Your task to perform on an android device: See recent photos Image 0: 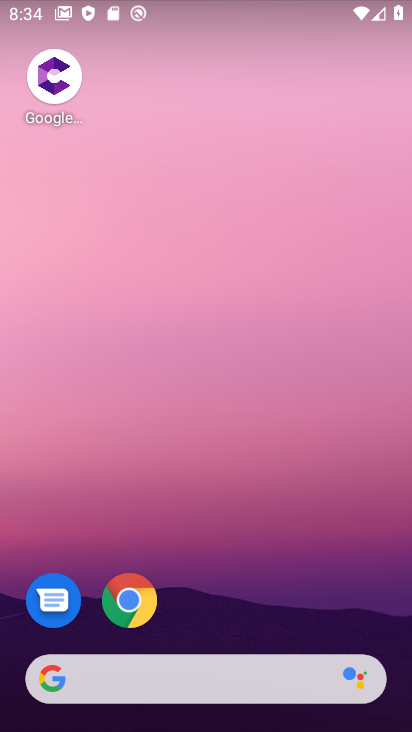
Step 0: drag from (214, 625) to (301, 112)
Your task to perform on an android device: See recent photos Image 1: 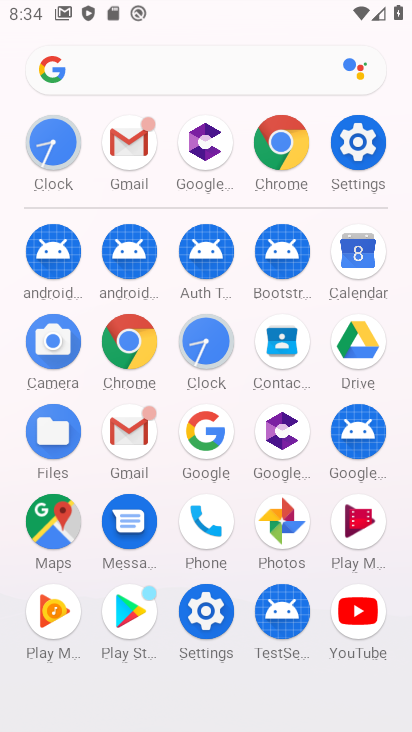
Step 1: click (272, 510)
Your task to perform on an android device: See recent photos Image 2: 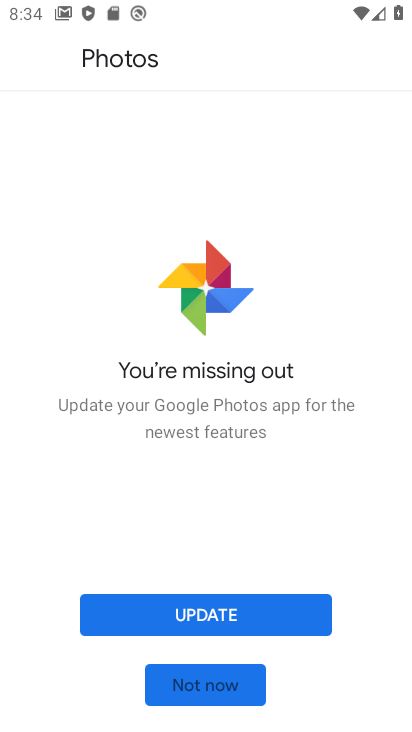
Step 2: click (227, 674)
Your task to perform on an android device: See recent photos Image 3: 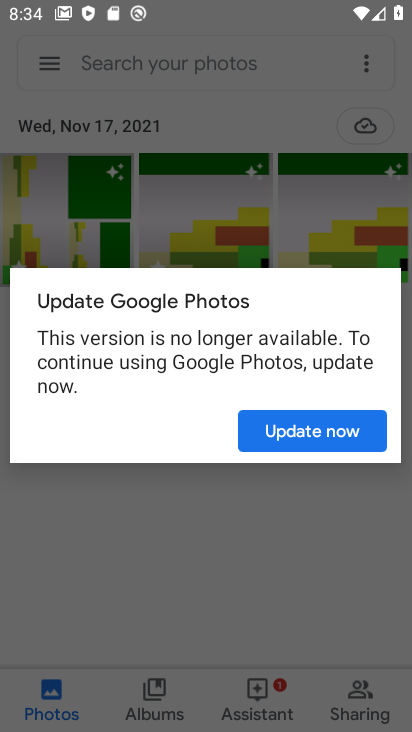
Step 3: click (293, 422)
Your task to perform on an android device: See recent photos Image 4: 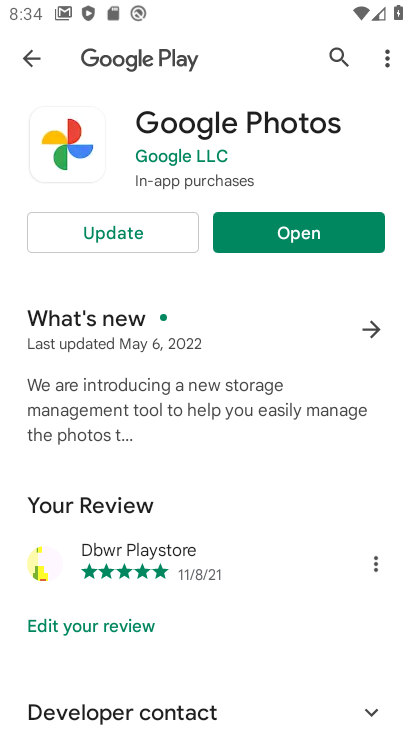
Step 4: click (262, 217)
Your task to perform on an android device: See recent photos Image 5: 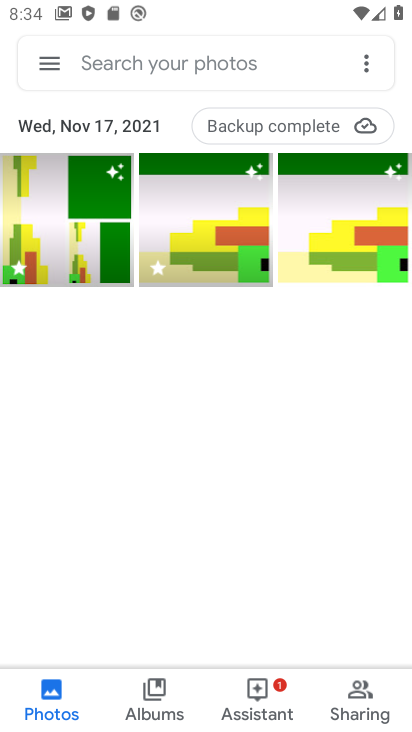
Step 5: task complete